Your task to perform on an android device: uninstall "Grab" Image 0: 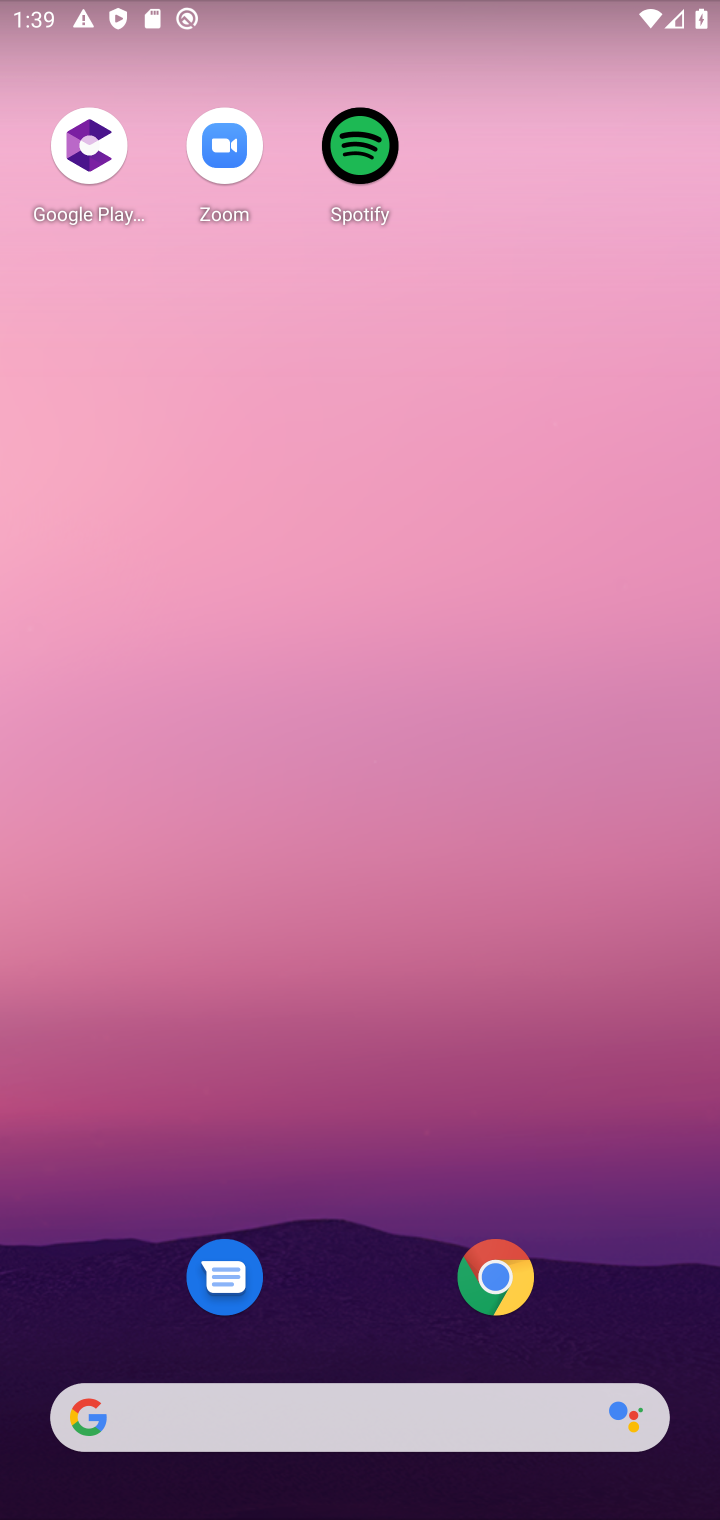
Step 0: drag from (395, 795) to (577, 39)
Your task to perform on an android device: uninstall "Grab" Image 1: 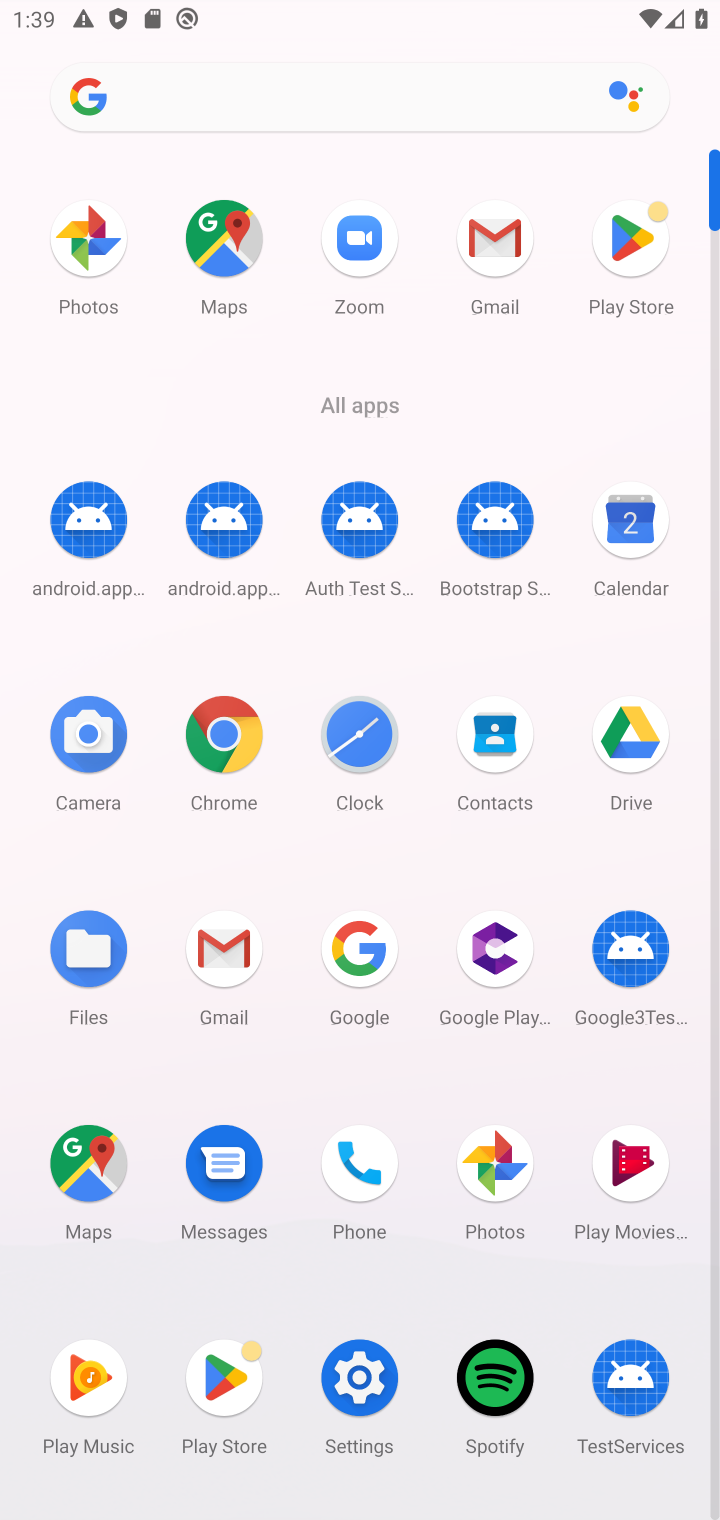
Step 1: click (631, 232)
Your task to perform on an android device: uninstall "Grab" Image 2: 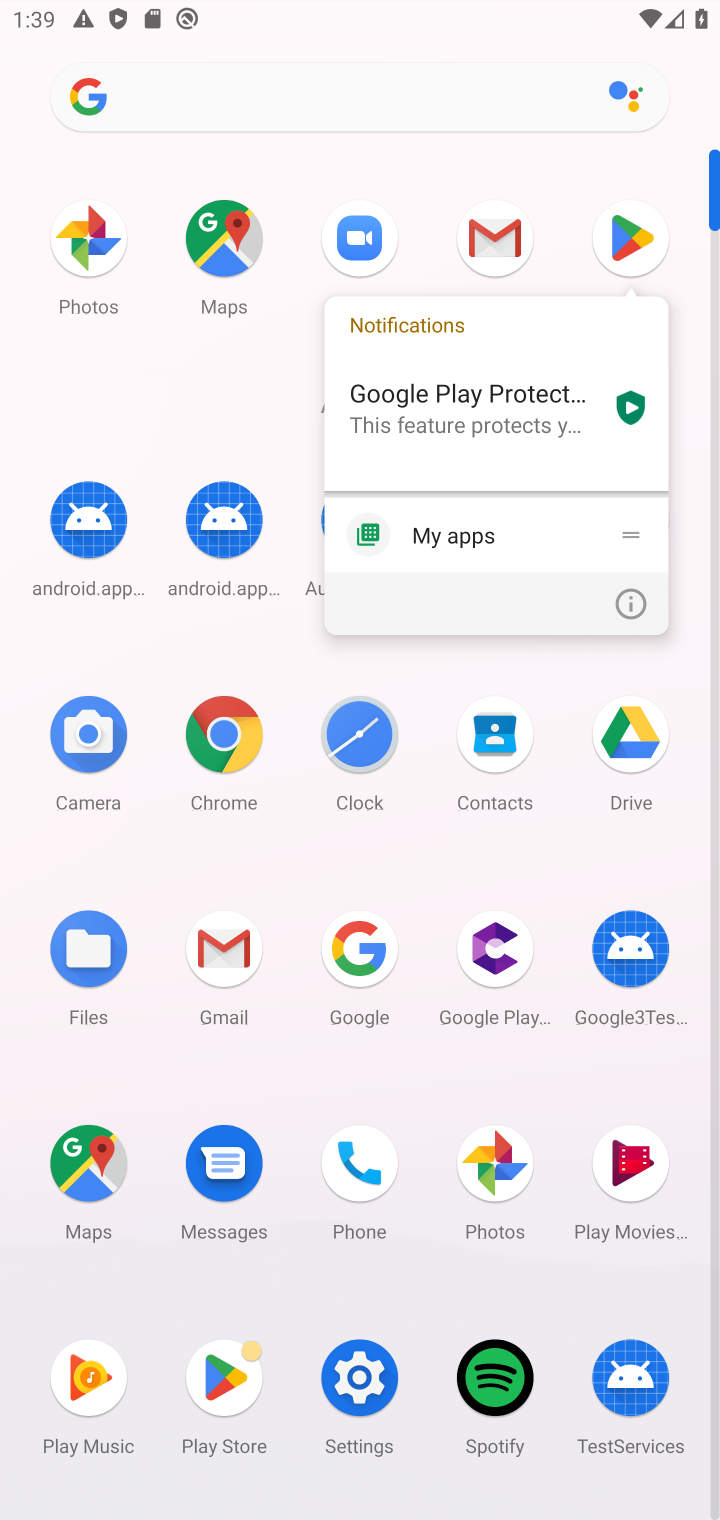
Step 2: click (624, 222)
Your task to perform on an android device: uninstall "Grab" Image 3: 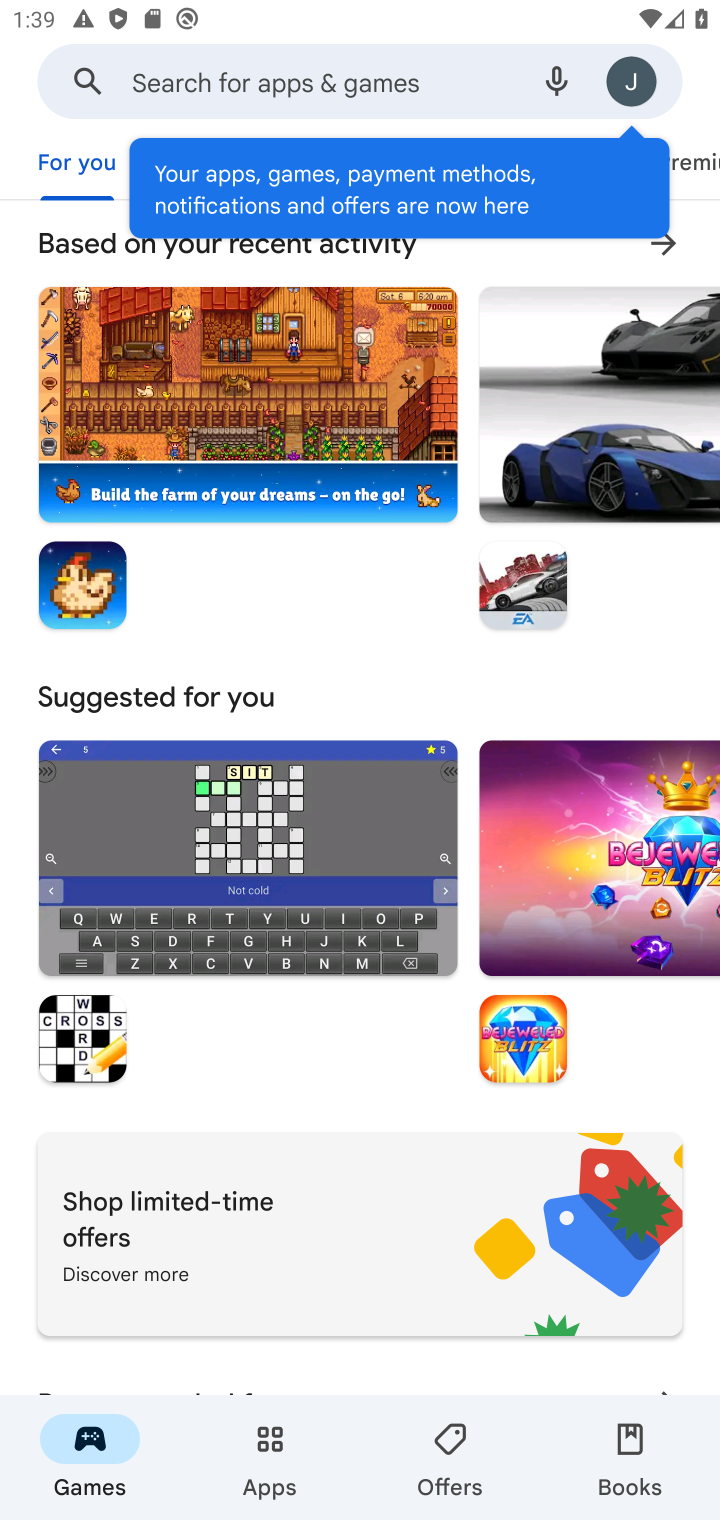
Step 3: click (295, 63)
Your task to perform on an android device: uninstall "Grab" Image 4: 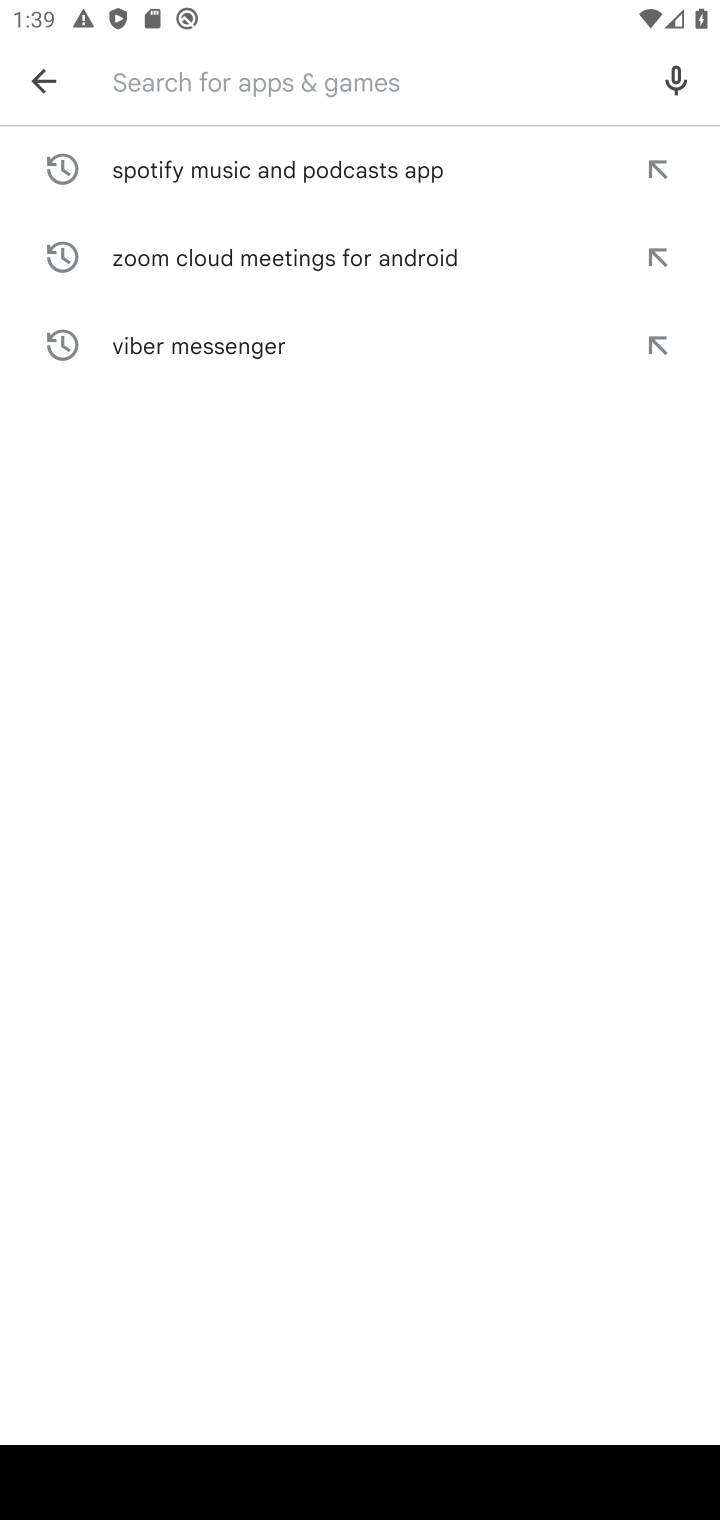
Step 4: type "Grab"
Your task to perform on an android device: uninstall "Grab" Image 5: 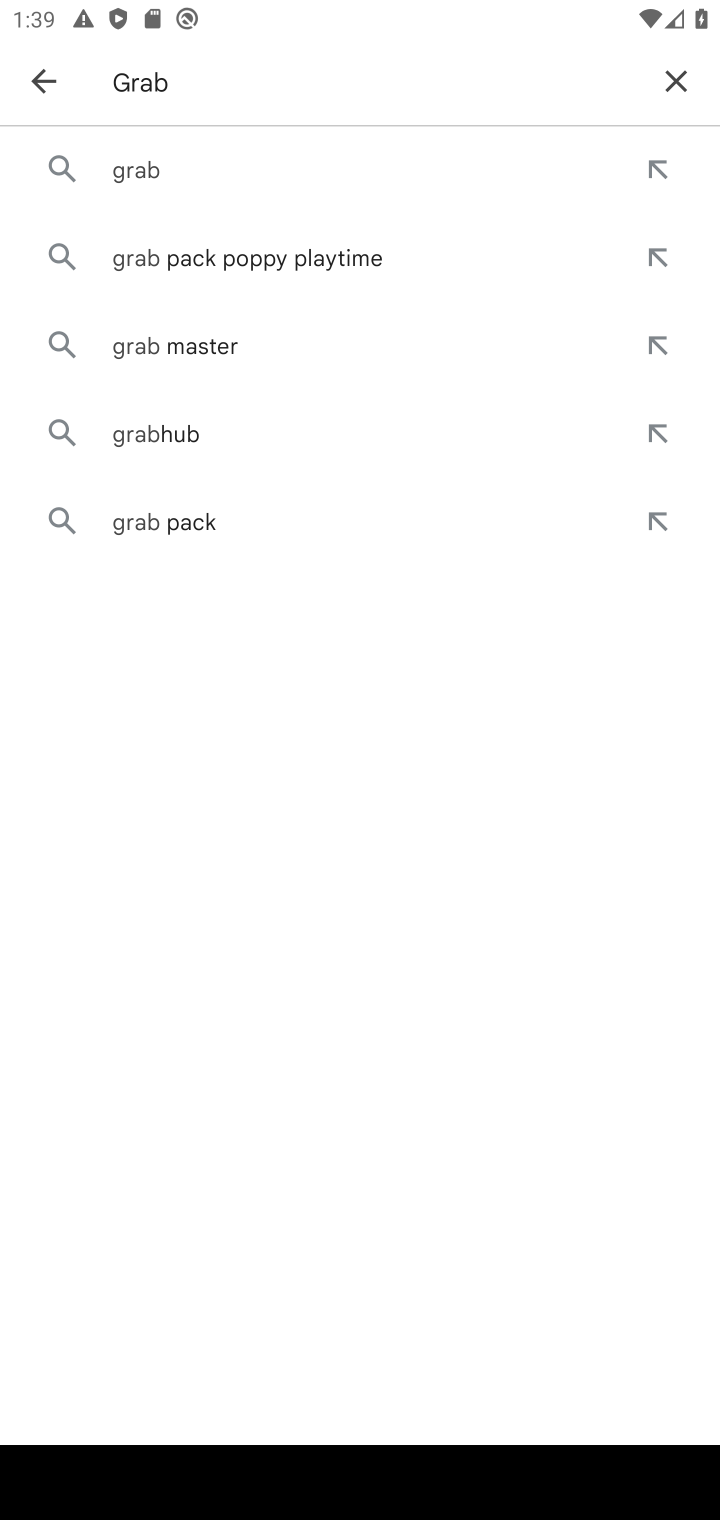
Step 5: click (151, 171)
Your task to perform on an android device: uninstall "Grab" Image 6: 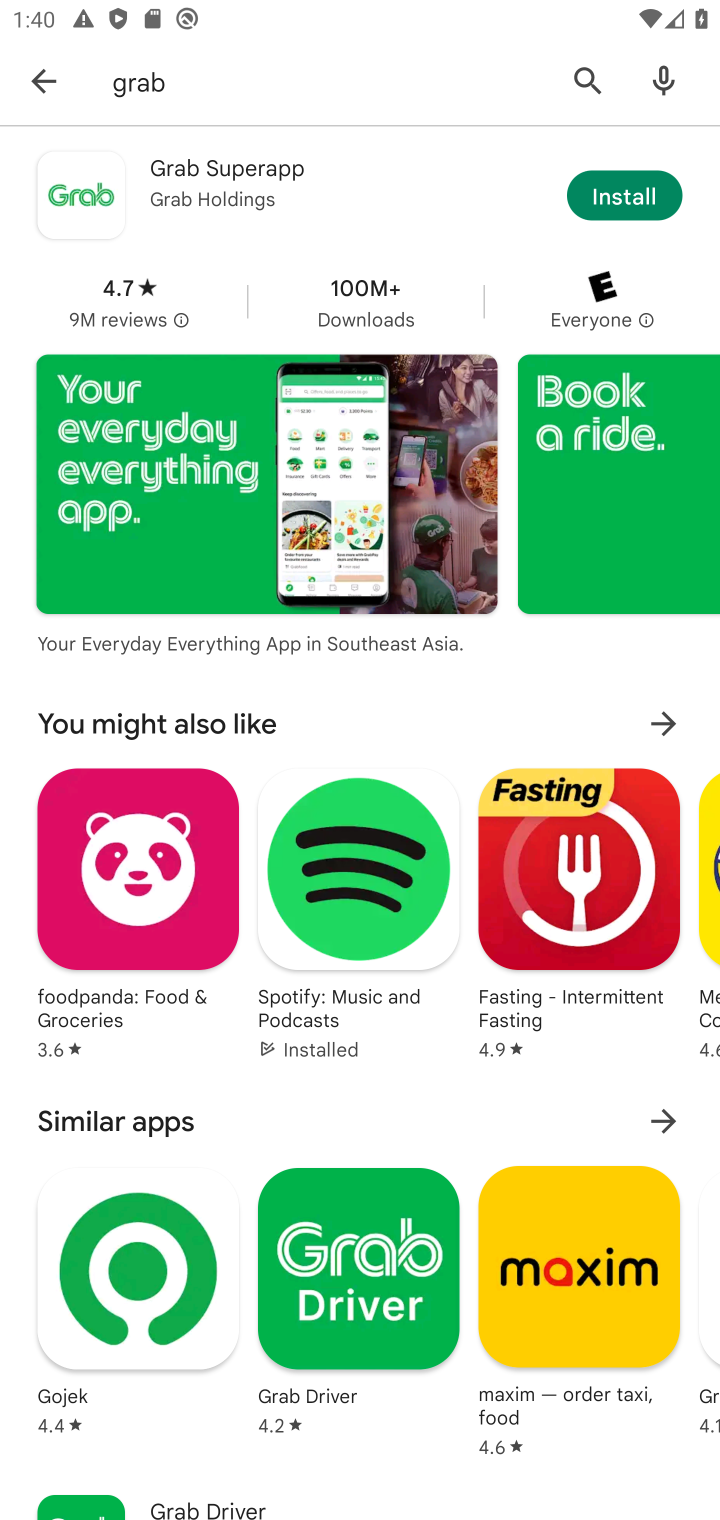
Step 6: task complete